Your task to perform on an android device: Go to battery settings Image 0: 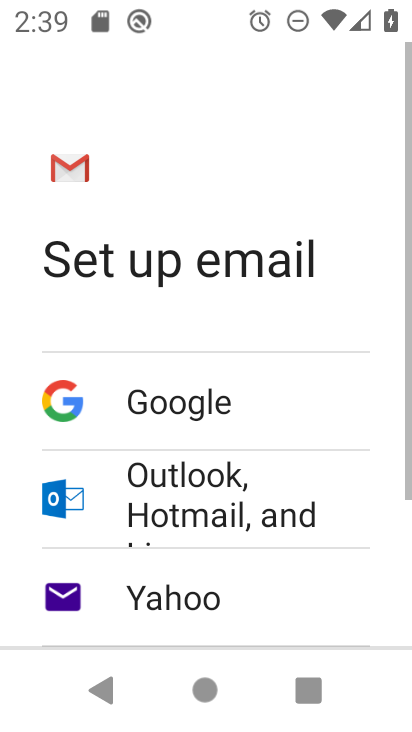
Step 0: press home button
Your task to perform on an android device: Go to battery settings Image 1: 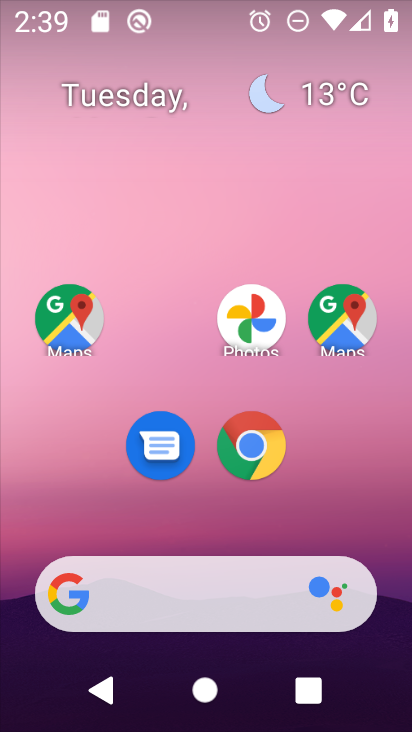
Step 1: drag from (394, 565) to (382, 123)
Your task to perform on an android device: Go to battery settings Image 2: 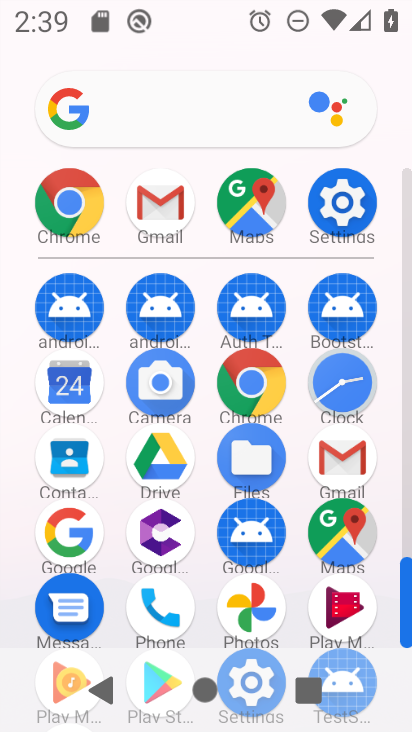
Step 2: click (355, 219)
Your task to perform on an android device: Go to battery settings Image 3: 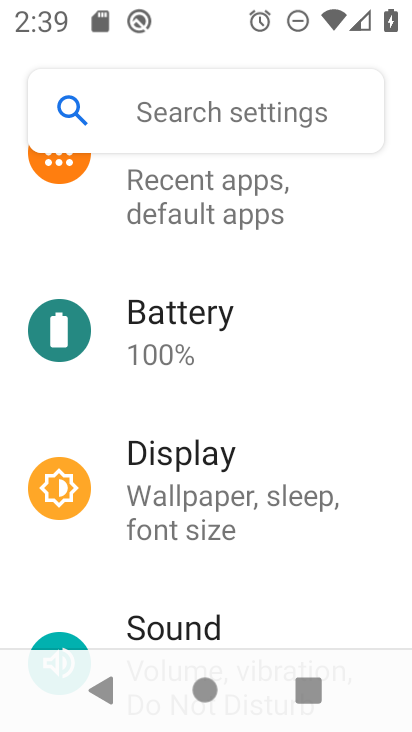
Step 3: drag from (372, 236) to (371, 393)
Your task to perform on an android device: Go to battery settings Image 4: 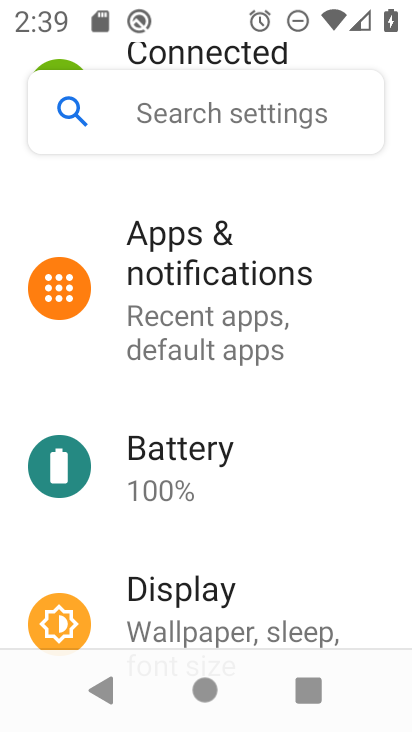
Step 4: drag from (365, 232) to (363, 363)
Your task to perform on an android device: Go to battery settings Image 5: 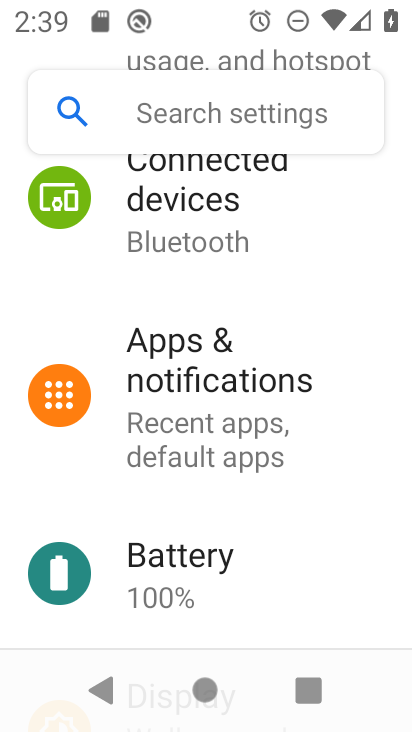
Step 5: drag from (363, 204) to (358, 354)
Your task to perform on an android device: Go to battery settings Image 6: 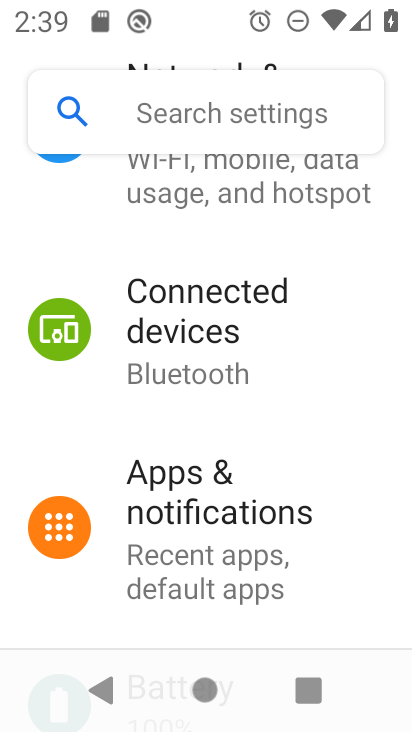
Step 6: drag from (386, 181) to (371, 346)
Your task to perform on an android device: Go to battery settings Image 7: 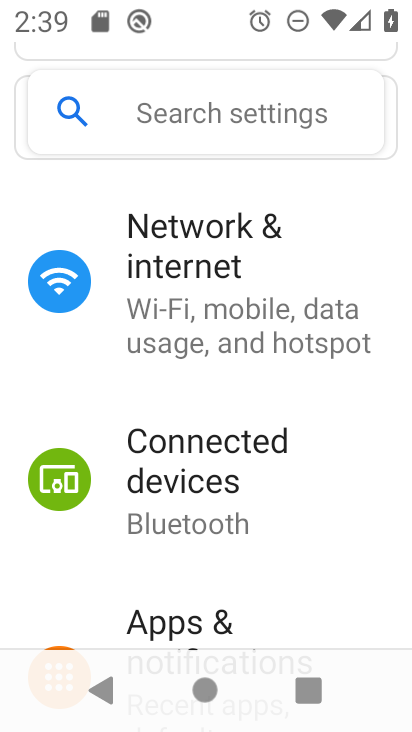
Step 7: drag from (374, 471) to (384, 358)
Your task to perform on an android device: Go to battery settings Image 8: 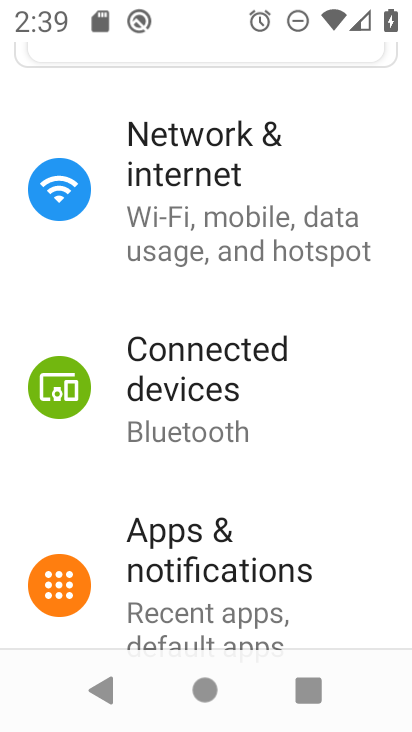
Step 8: drag from (391, 488) to (392, 383)
Your task to perform on an android device: Go to battery settings Image 9: 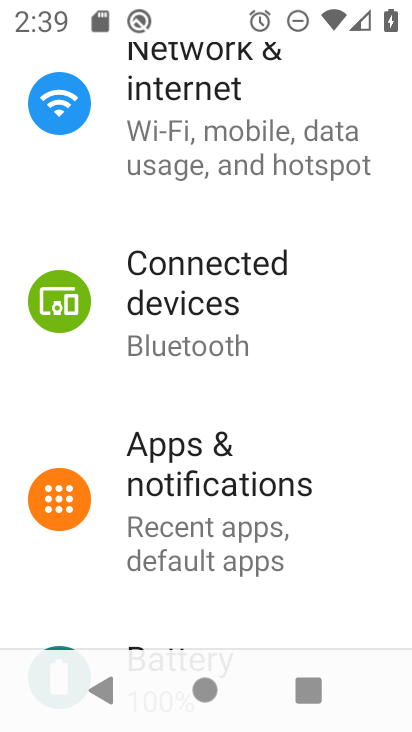
Step 9: drag from (380, 527) to (380, 420)
Your task to perform on an android device: Go to battery settings Image 10: 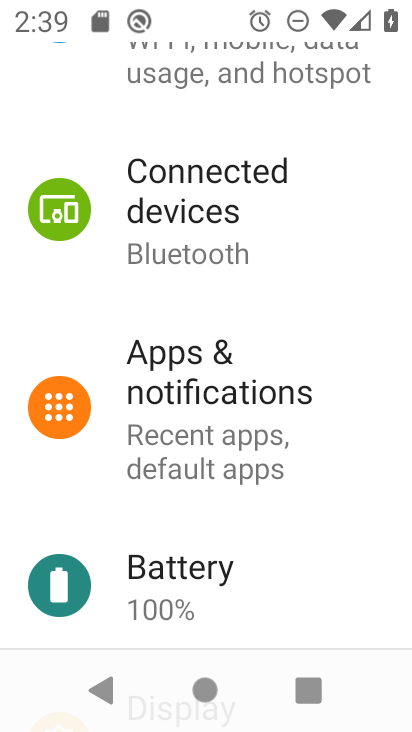
Step 10: drag from (361, 539) to (362, 404)
Your task to perform on an android device: Go to battery settings Image 11: 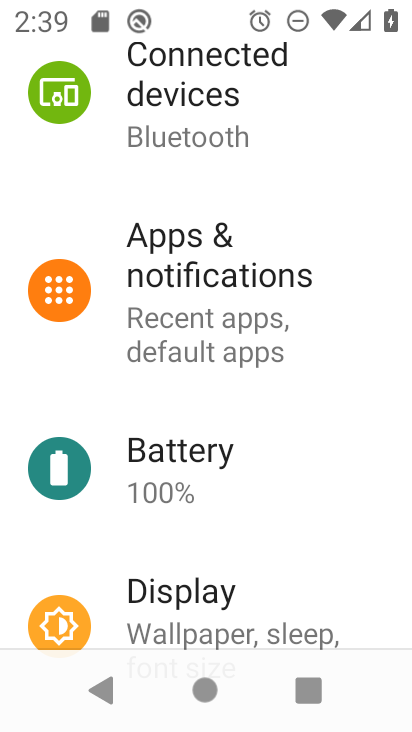
Step 11: drag from (355, 521) to (363, 313)
Your task to perform on an android device: Go to battery settings Image 12: 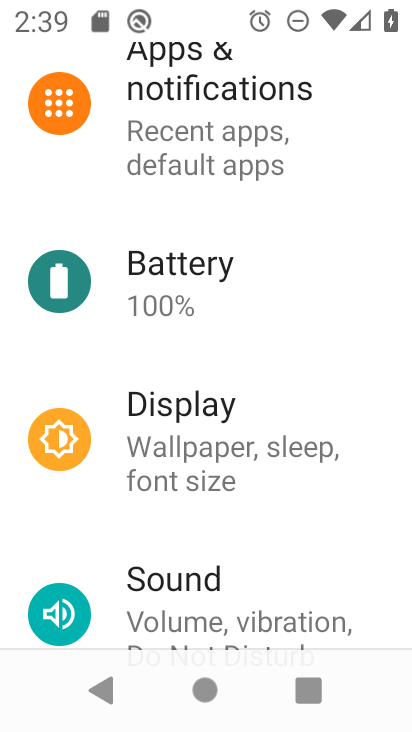
Step 12: click (244, 296)
Your task to perform on an android device: Go to battery settings Image 13: 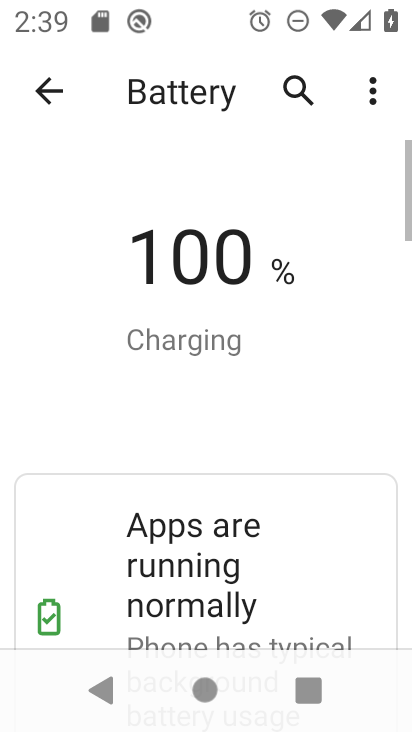
Step 13: task complete